Your task to perform on an android device: Open Amazon Image 0: 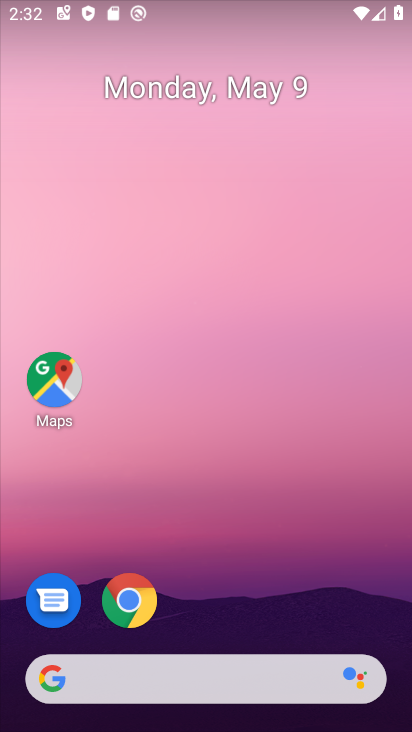
Step 0: click (136, 592)
Your task to perform on an android device: Open Amazon Image 1: 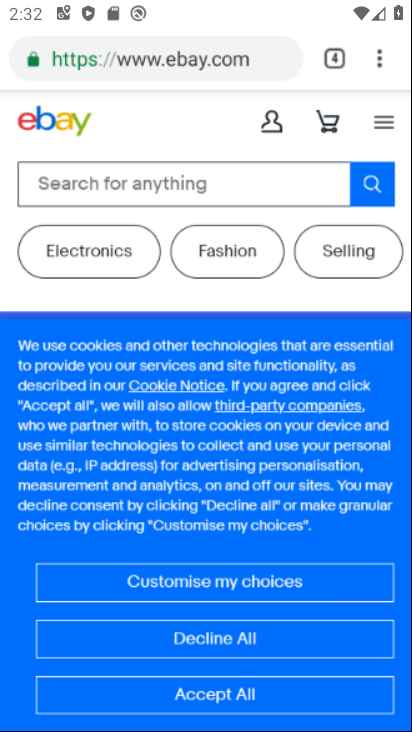
Step 1: click (330, 55)
Your task to perform on an android device: Open Amazon Image 2: 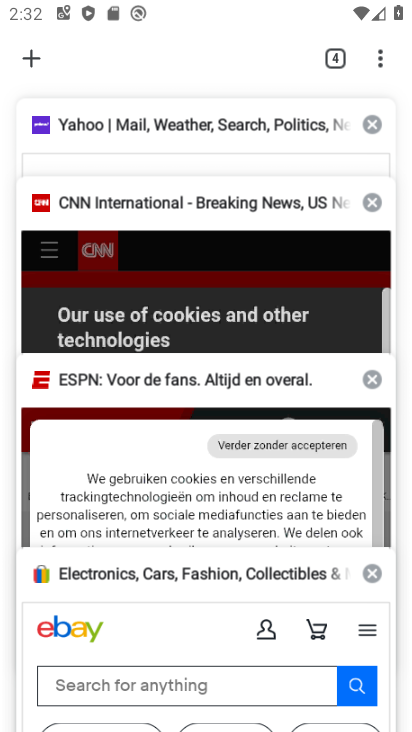
Step 2: click (34, 57)
Your task to perform on an android device: Open Amazon Image 3: 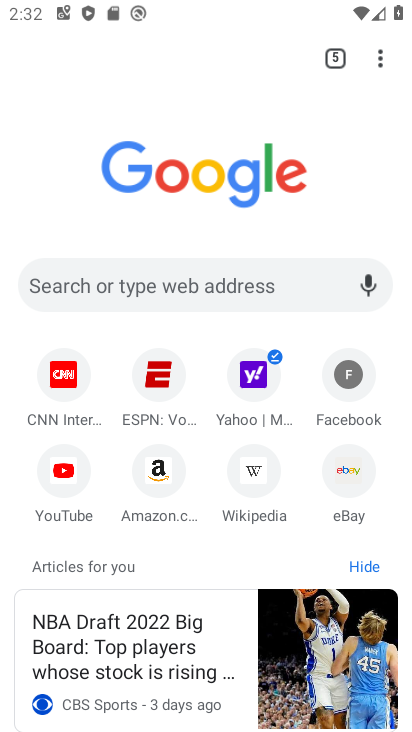
Step 3: click (173, 474)
Your task to perform on an android device: Open Amazon Image 4: 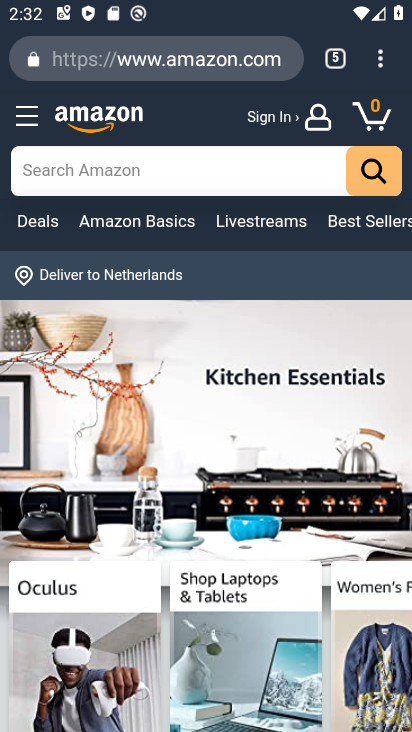
Step 4: task complete